Your task to perform on an android device: Open Wikipedia Image 0: 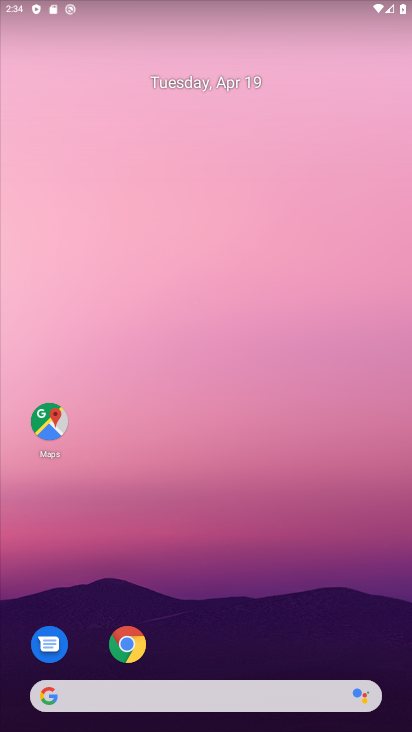
Step 0: drag from (254, 639) to (249, 65)
Your task to perform on an android device: Open Wikipedia Image 1: 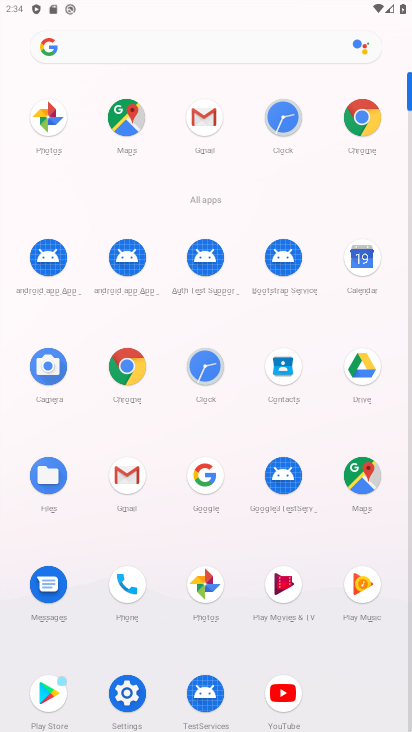
Step 1: click (120, 366)
Your task to perform on an android device: Open Wikipedia Image 2: 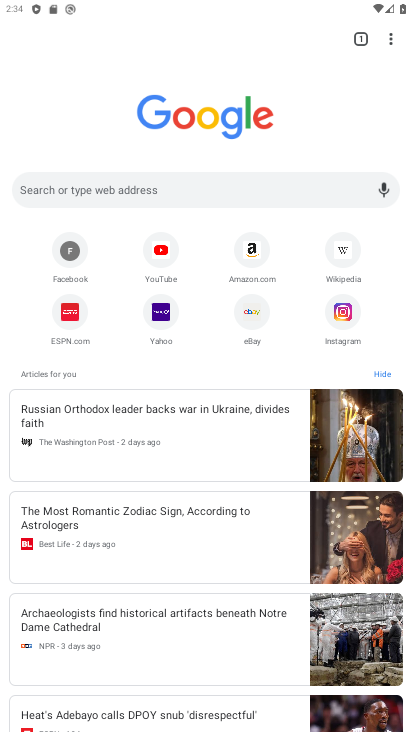
Step 2: click (342, 250)
Your task to perform on an android device: Open Wikipedia Image 3: 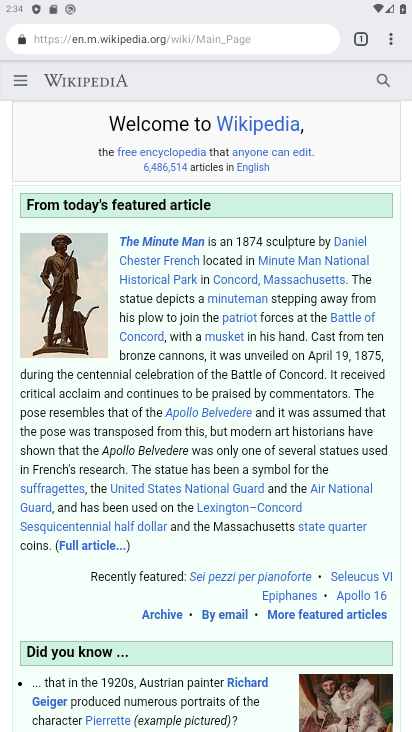
Step 3: task complete